Your task to perform on an android device: open wifi settings Image 0: 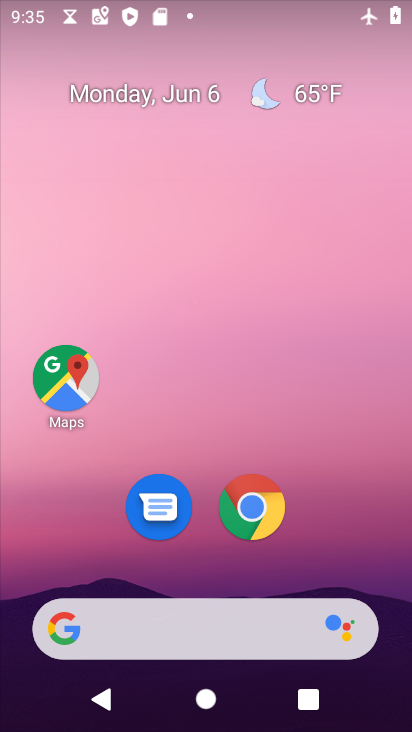
Step 0: drag from (306, 544) to (305, 215)
Your task to perform on an android device: open wifi settings Image 1: 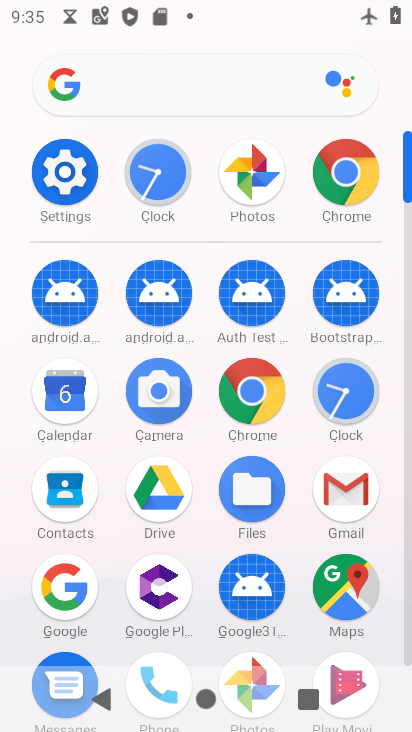
Step 1: click (61, 162)
Your task to perform on an android device: open wifi settings Image 2: 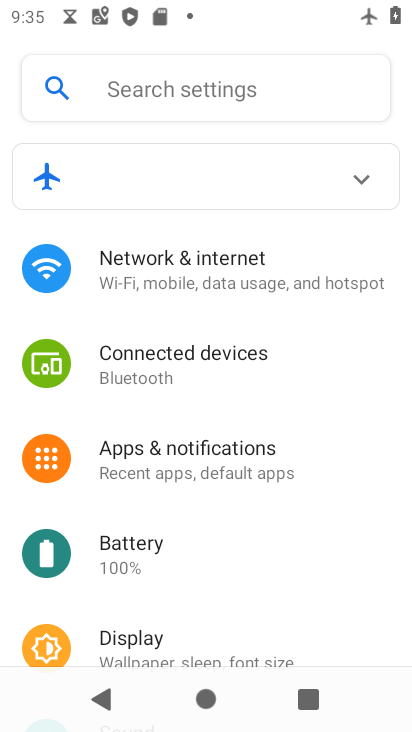
Step 2: click (171, 278)
Your task to perform on an android device: open wifi settings Image 3: 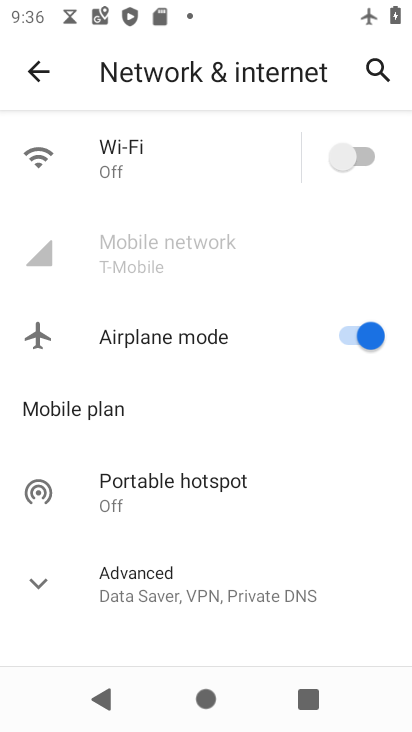
Step 3: task complete